Your task to perform on an android device: turn off location history Image 0: 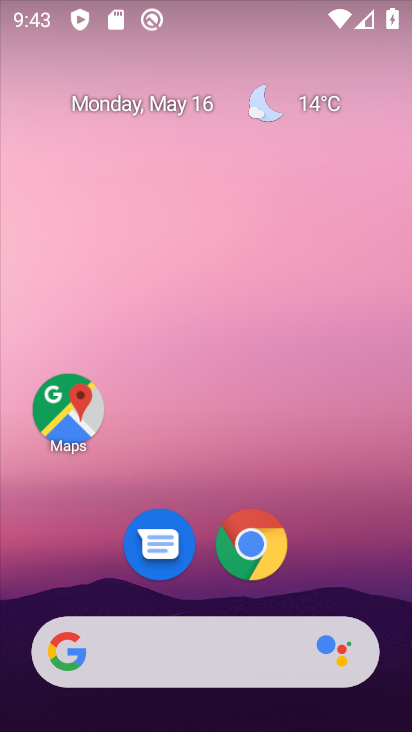
Step 0: drag from (382, 589) to (361, 190)
Your task to perform on an android device: turn off location history Image 1: 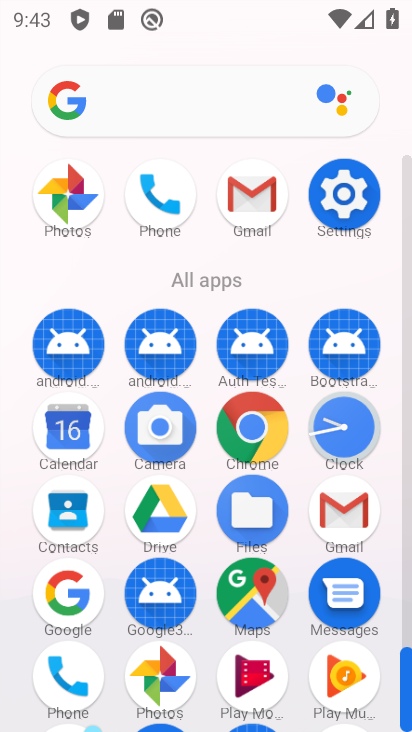
Step 1: click (343, 212)
Your task to perform on an android device: turn off location history Image 2: 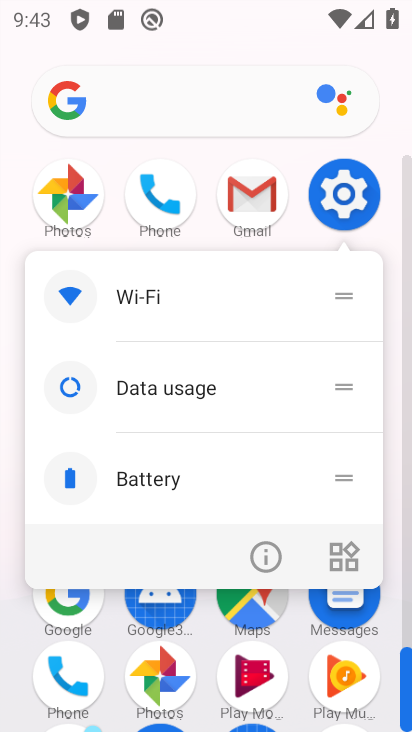
Step 2: click (359, 213)
Your task to perform on an android device: turn off location history Image 3: 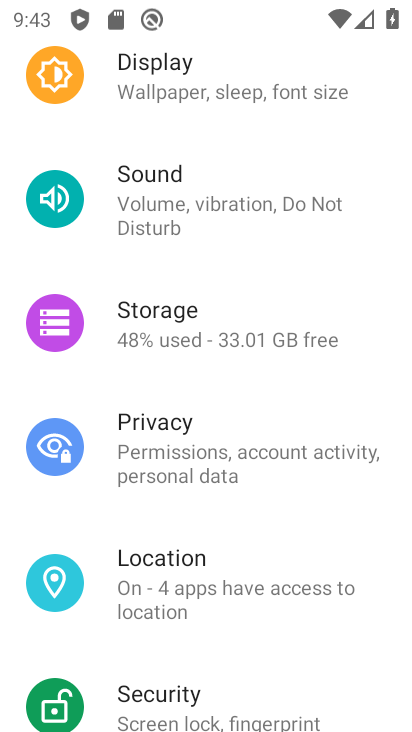
Step 3: click (236, 578)
Your task to perform on an android device: turn off location history Image 4: 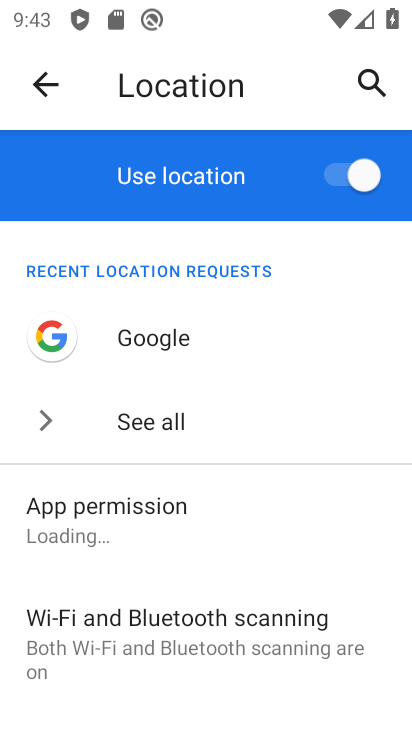
Step 4: drag from (216, 623) to (251, 258)
Your task to perform on an android device: turn off location history Image 5: 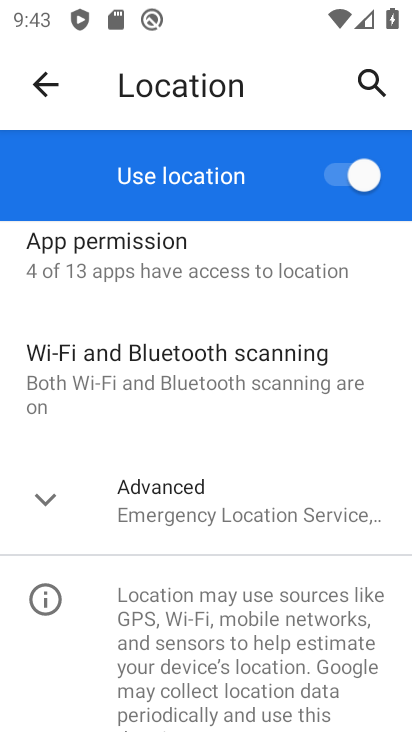
Step 5: click (46, 508)
Your task to perform on an android device: turn off location history Image 6: 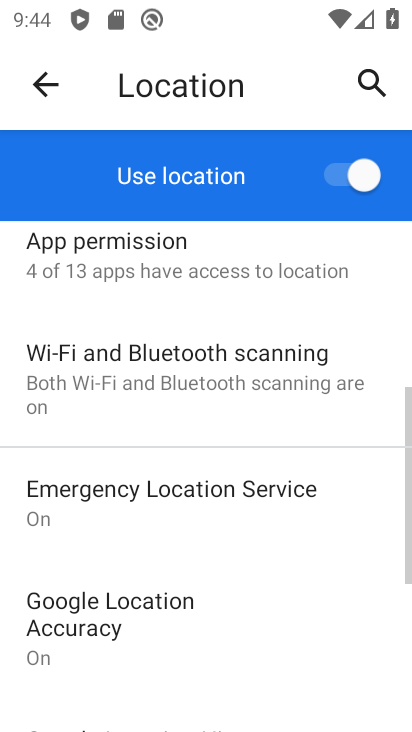
Step 6: drag from (223, 674) to (258, 367)
Your task to perform on an android device: turn off location history Image 7: 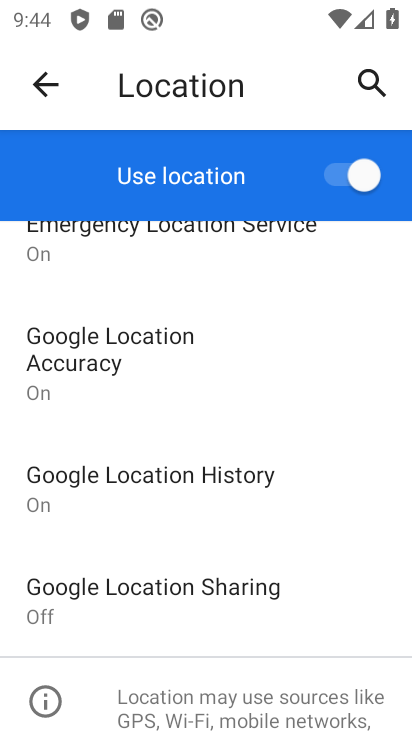
Step 7: click (224, 489)
Your task to perform on an android device: turn off location history Image 8: 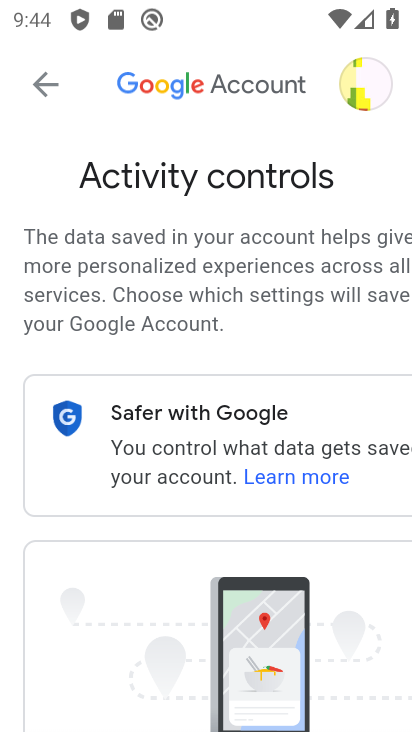
Step 8: drag from (347, 649) to (367, 255)
Your task to perform on an android device: turn off location history Image 9: 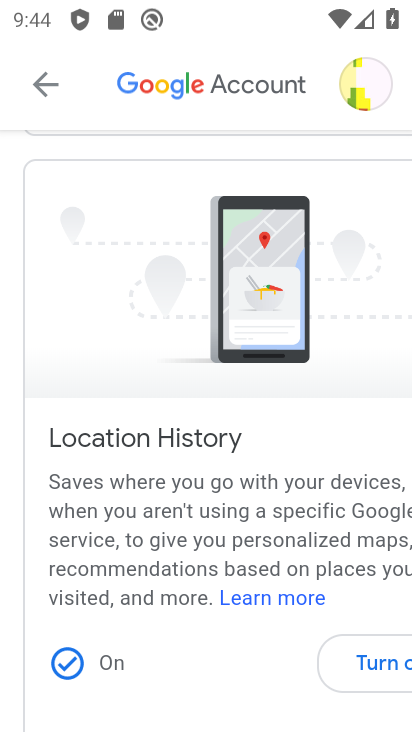
Step 9: drag from (356, 592) to (228, 414)
Your task to perform on an android device: turn off location history Image 10: 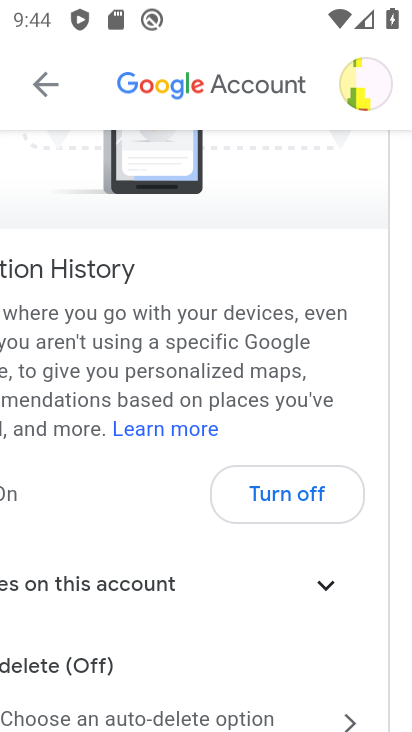
Step 10: click (275, 494)
Your task to perform on an android device: turn off location history Image 11: 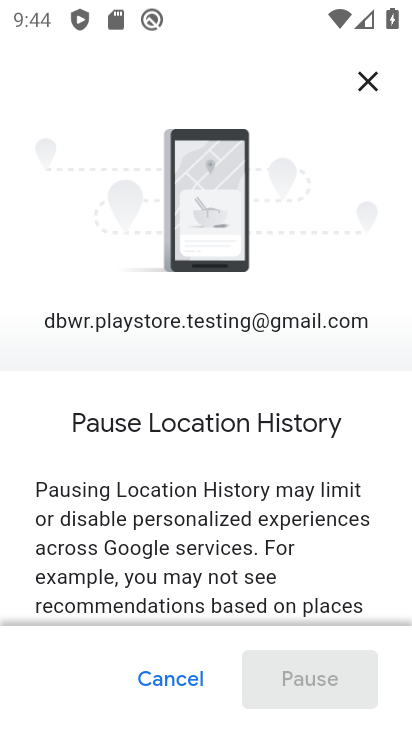
Step 11: drag from (240, 598) to (285, 211)
Your task to perform on an android device: turn off location history Image 12: 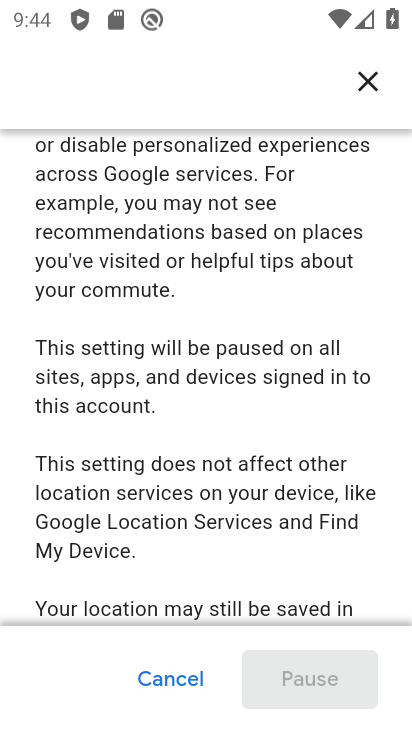
Step 12: drag from (245, 464) to (304, 43)
Your task to perform on an android device: turn off location history Image 13: 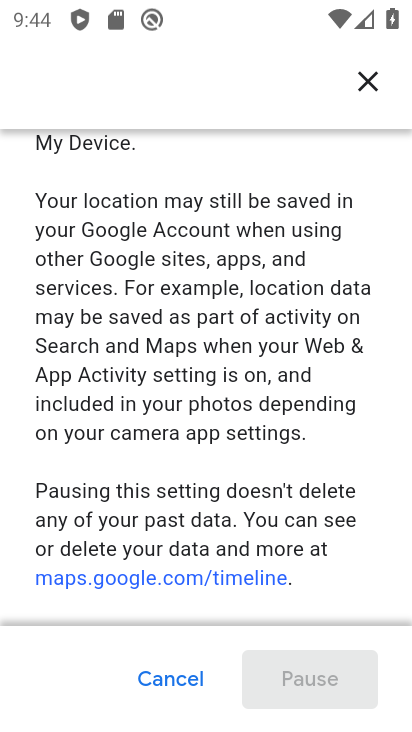
Step 13: drag from (254, 372) to (304, 224)
Your task to perform on an android device: turn off location history Image 14: 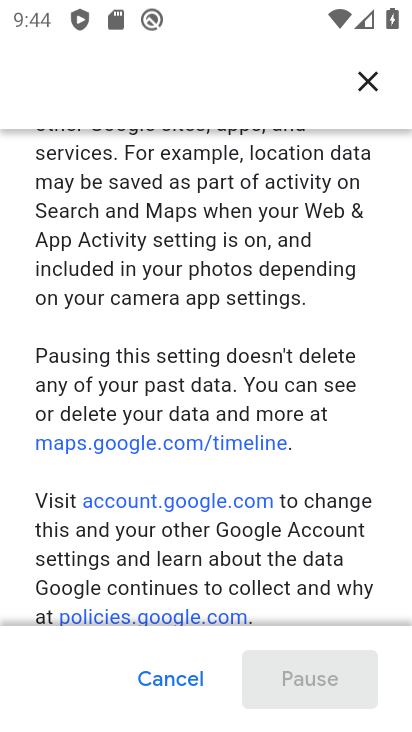
Step 14: drag from (284, 577) to (338, 199)
Your task to perform on an android device: turn off location history Image 15: 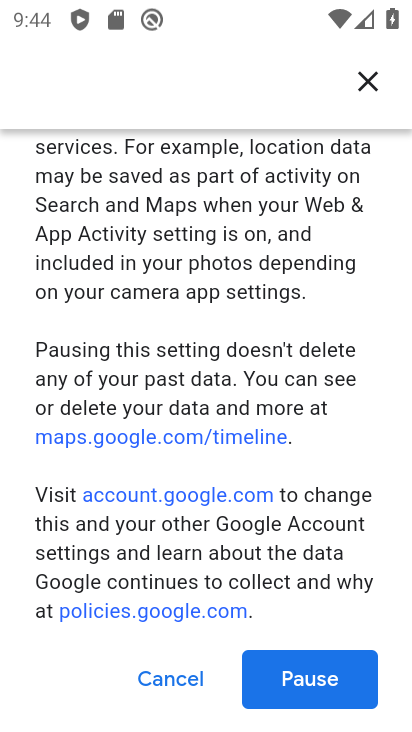
Step 15: click (304, 696)
Your task to perform on an android device: turn off location history Image 16: 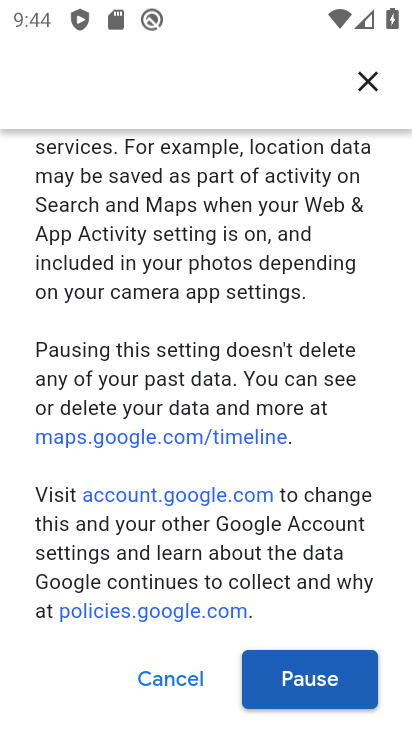
Step 16: click (327, 687)
Your task to perform on an android device: turn off location history Image 17: 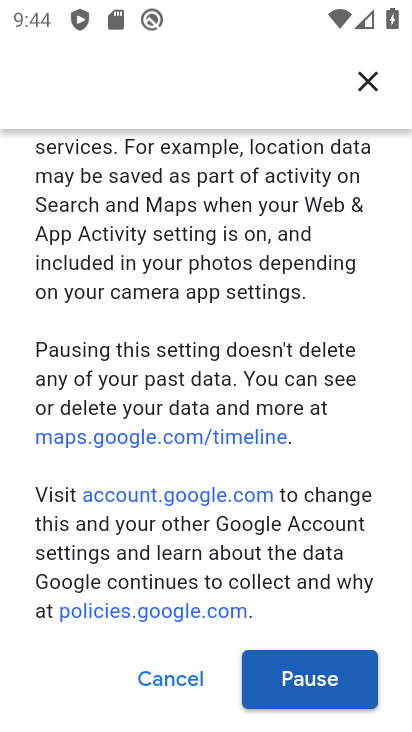
Step 17: click (290, 706)
Your task to perform on an android device: turn off location history Image 18: 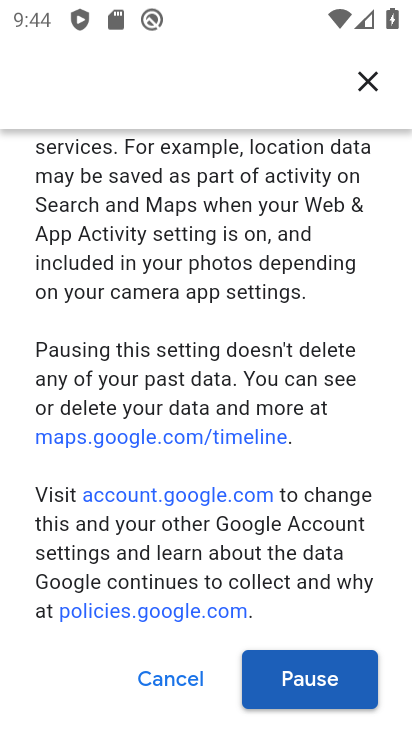
Step 18: drag from (296, 544) to (325, 318)
Your task to perform on an android device: turn off location history Image 19: 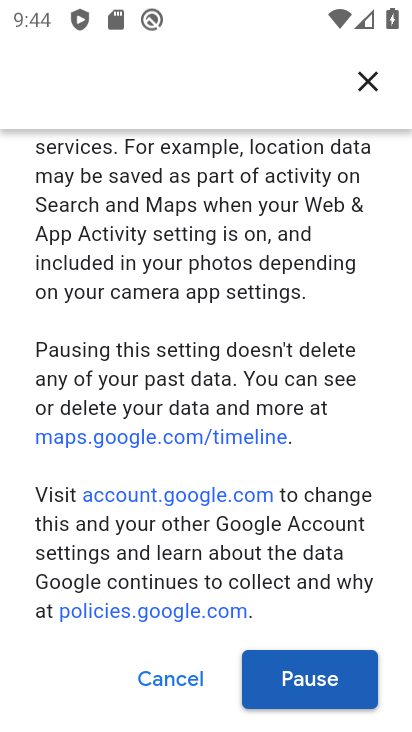
Step 19: click (322, 679)
Your task to perform on an android device: turn off location history Image 20: 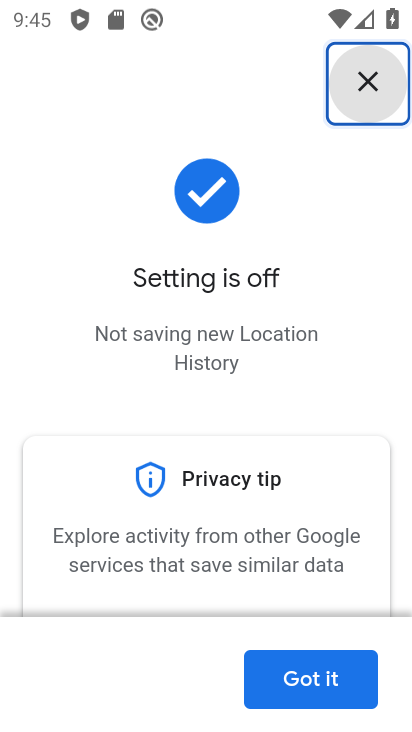
Step 20: click (322, 679)
Your task to perform on an android device: turn off location history Image 21: 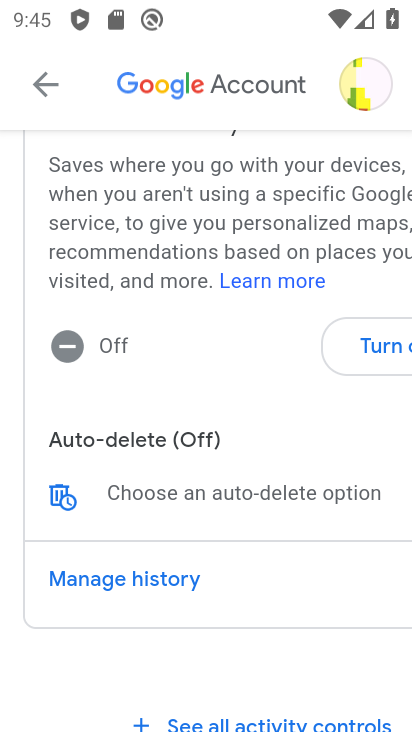
Step 21: task complete